Your task to perform on an android device: search for starred emails in the gmail app Image 0: 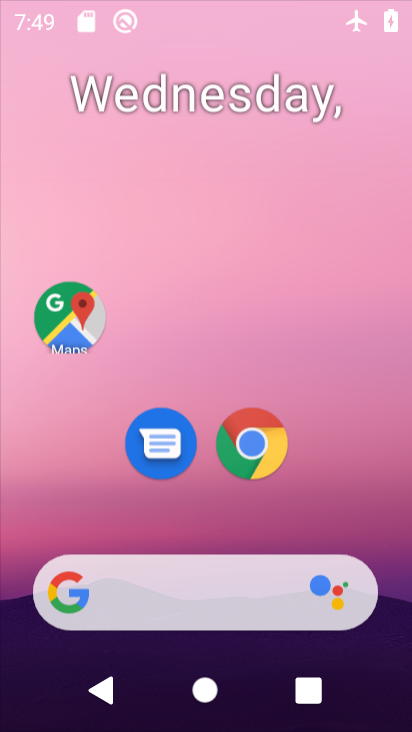
Step 0: press home button
Your task to perform on an android device: search for starred emails in the gmail app Image 1: 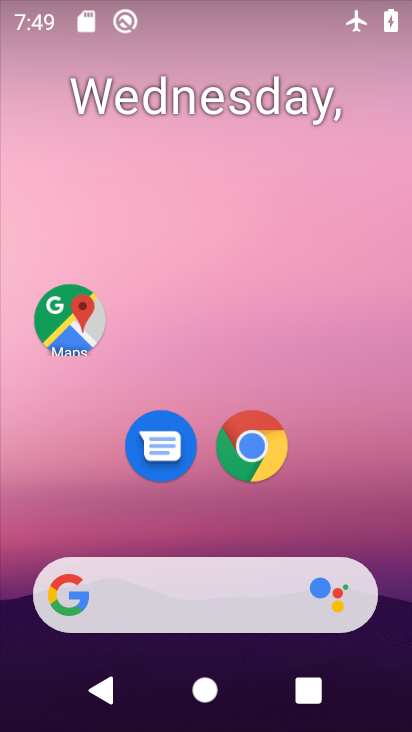
Step 1: drag from (203, 518) to (249, 60)
Your task to perform on an android device: search for starred emails in the gmail app Image 2: 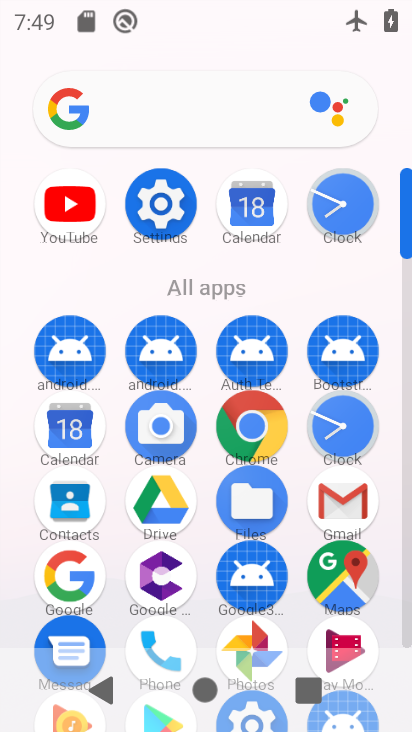
Step 2: click (339, 488)
Your task to perform on an android device: search for starred emails in the gmail app Image 3: 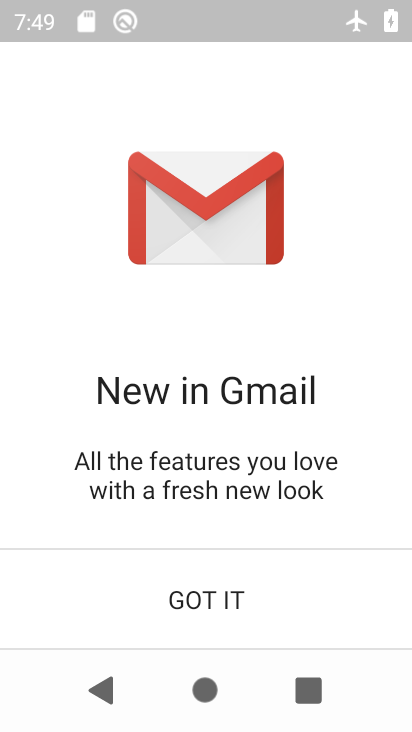
Step 3: click (203, 607)
Your task to perform on an android device: search for starred emails in the gmail app Image 4: 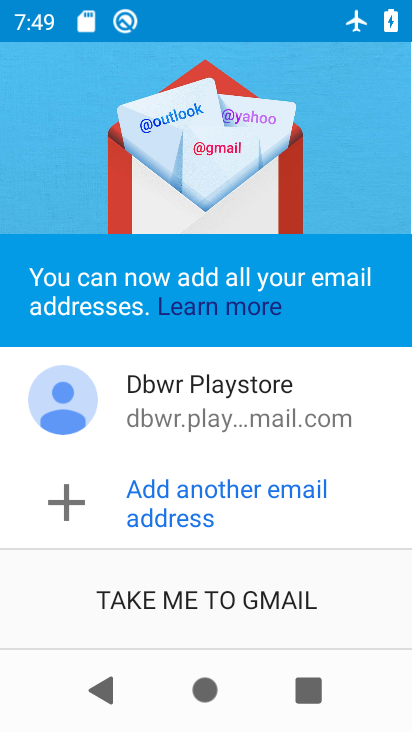
Step 4: click (208, 599)
Your task to perform on an android device: search for starred emails in the gmail app Image 5: 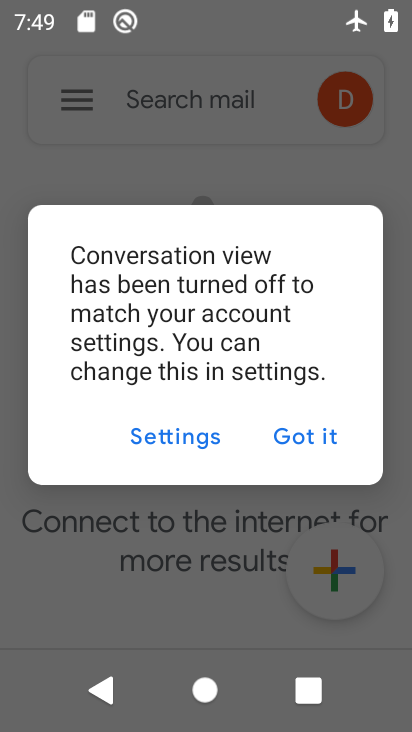
Step 5: click (307, 435)
Your task to perform on an android device: search for starred emails in the gmail app Image 6: 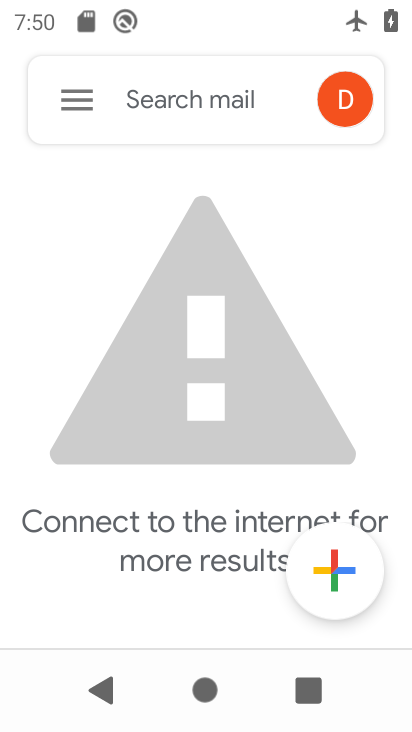
Step 6: click (64, 105)
Your task to perform on an android device: search for starred emails in the gmail app Image 7: 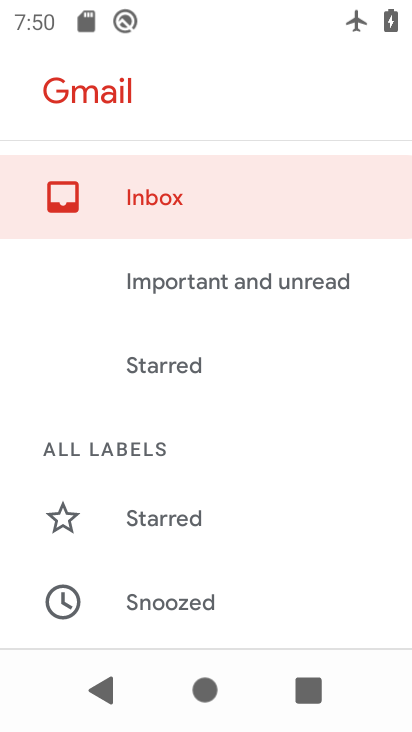
Step 7: click (168, 515)
Your task to perform on an android device: search for starred emails in the gmail app Image 8: 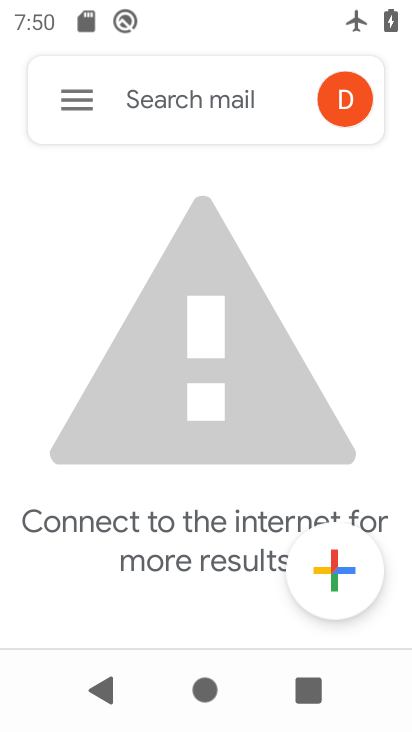
Step 8: task complete